Your task to perform on an android device: Open wifi settings Image 0: 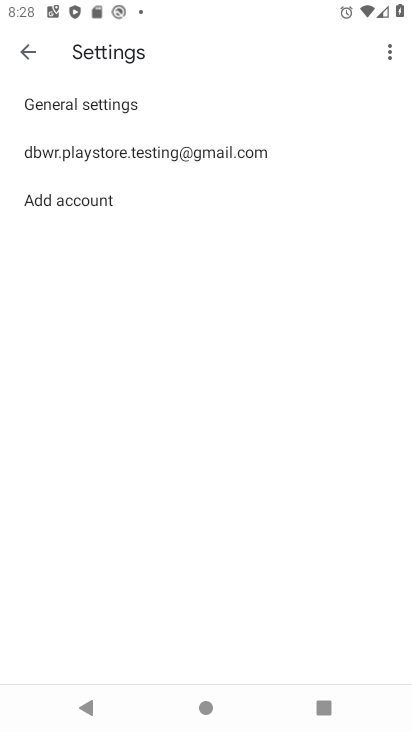
Step 0: press home button
Your task to perform on an android device: Open wifi settings Image 1: 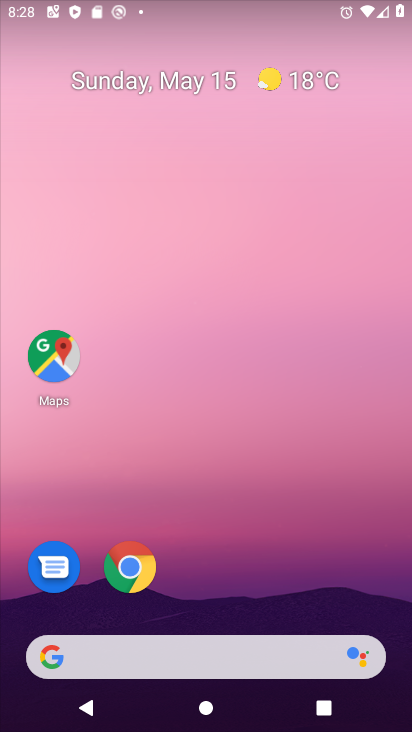
Step 1: drag from (260, 719) to (322, 2)
Your task to perform on an android device: Open wifi settings Image 2: 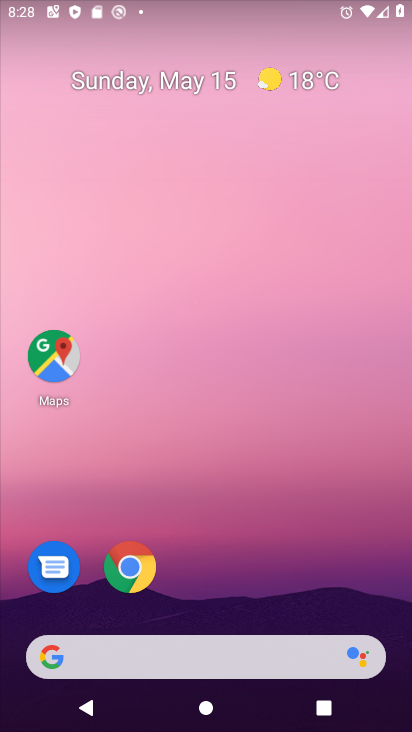
Step 2: drag from (252, 707) to (338, 58)
Your task to perform on an android device: Open wifi settings Image 3: 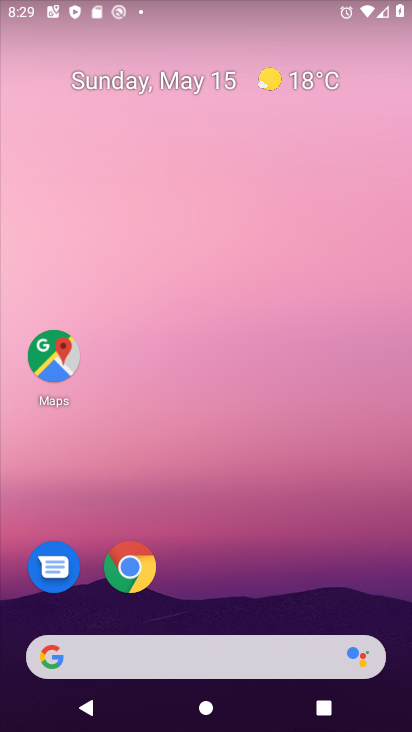
Step 3: drag from (256, 711) to (271, 32)
Your task to perform on an android device: Open wifi settings Image 4: 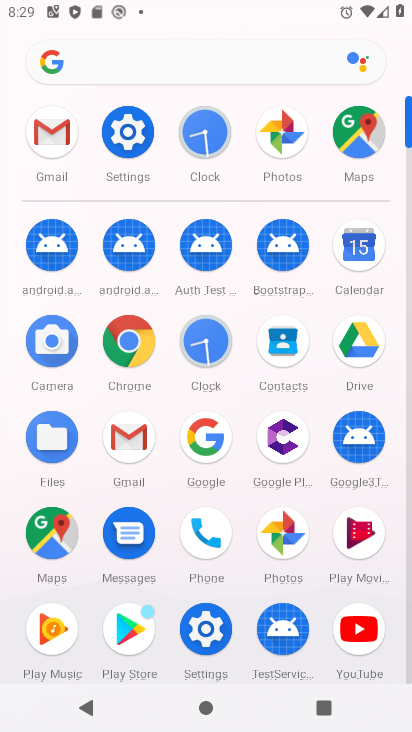
Step 4: click (115, 128)
Your task to perform on an android device: Open wifi settings Image 5: 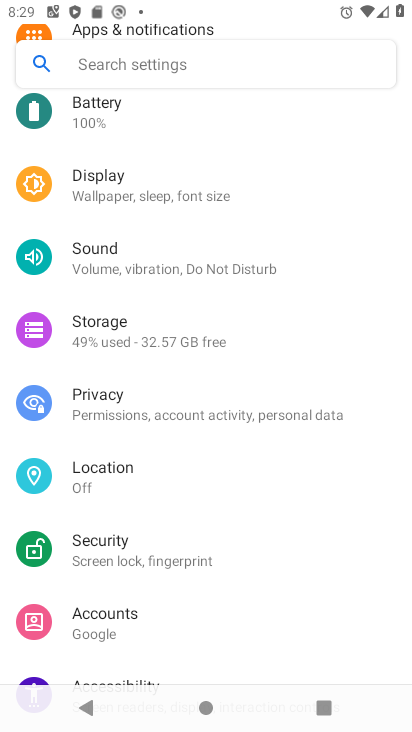
Step 5: drag from (242, 147) to (241, 623)
Your task to perform on an android device: Open wifi settings Image 6: 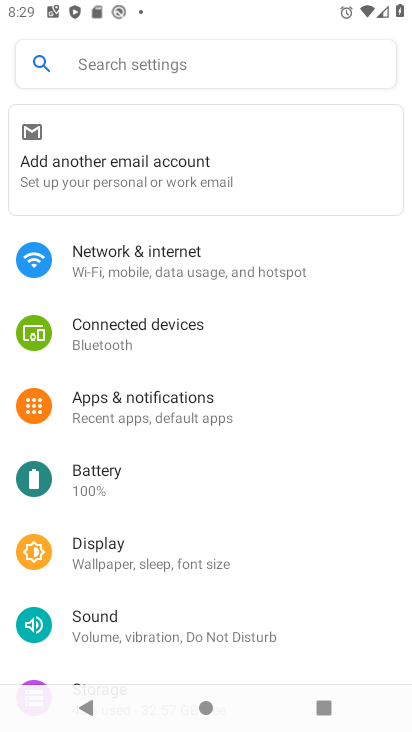
Step 6: click (298, 273)
Your task to perform on an android device: Open wifi settings Image 7: 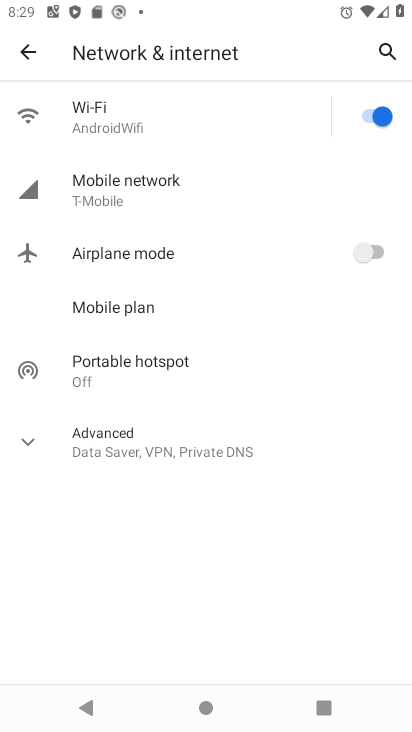
Step 7: click (218, 109)
Your task to perform on an android device: Open wifi settings Image 8: 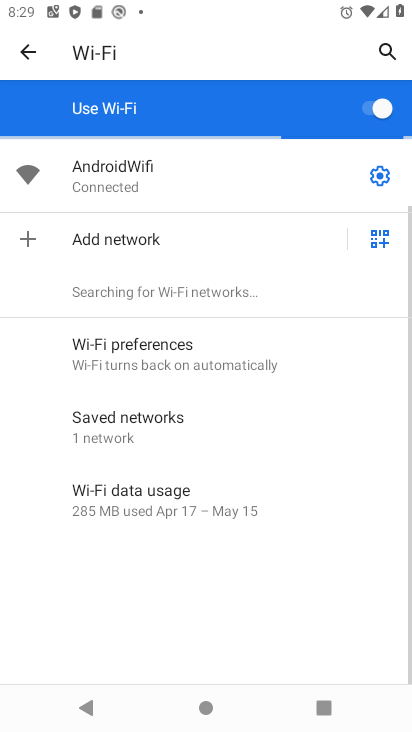
Step 8: click (379, 171)
Your task to perform on an android device: Open wifi settings Image 9: 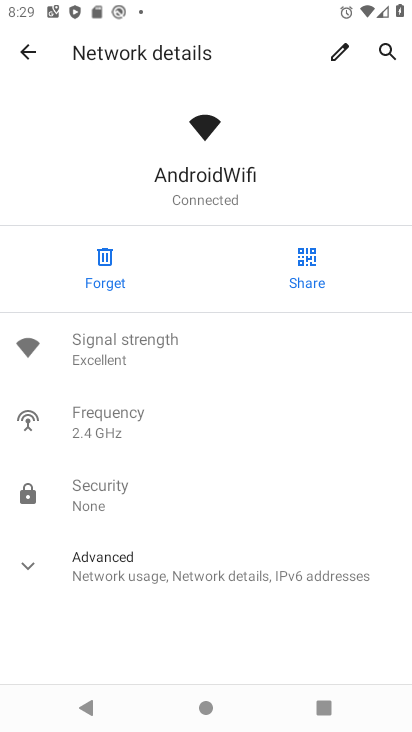
Step 9: task complete